Your task to perform on an android device: empty trash in google photos Image 0: 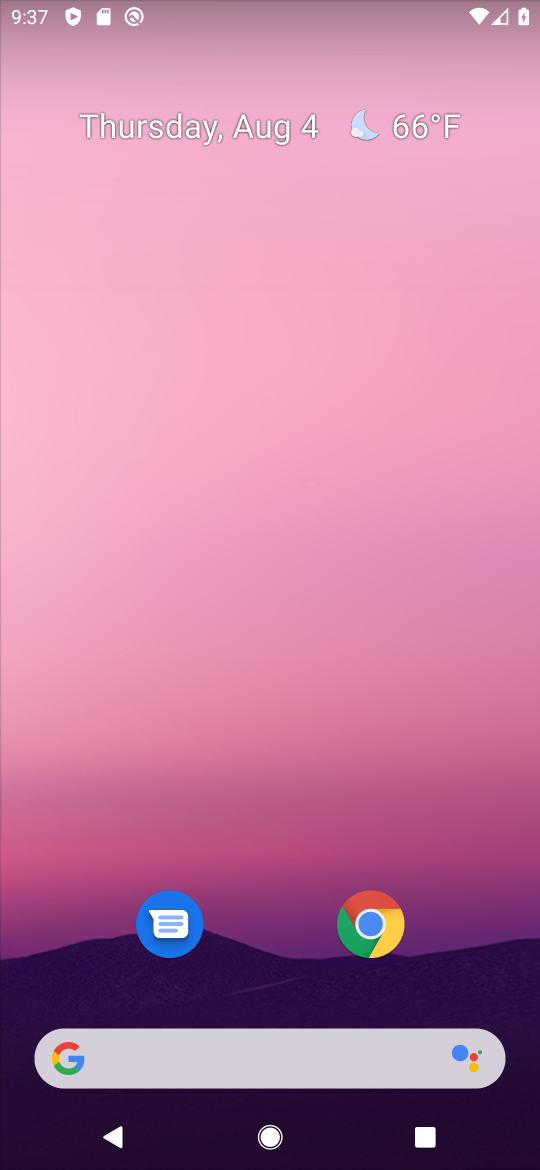
Step 0: drag from (271, 856) to (355, 366)
Your task to perform on an android device: empty trash in google photos Image 1: 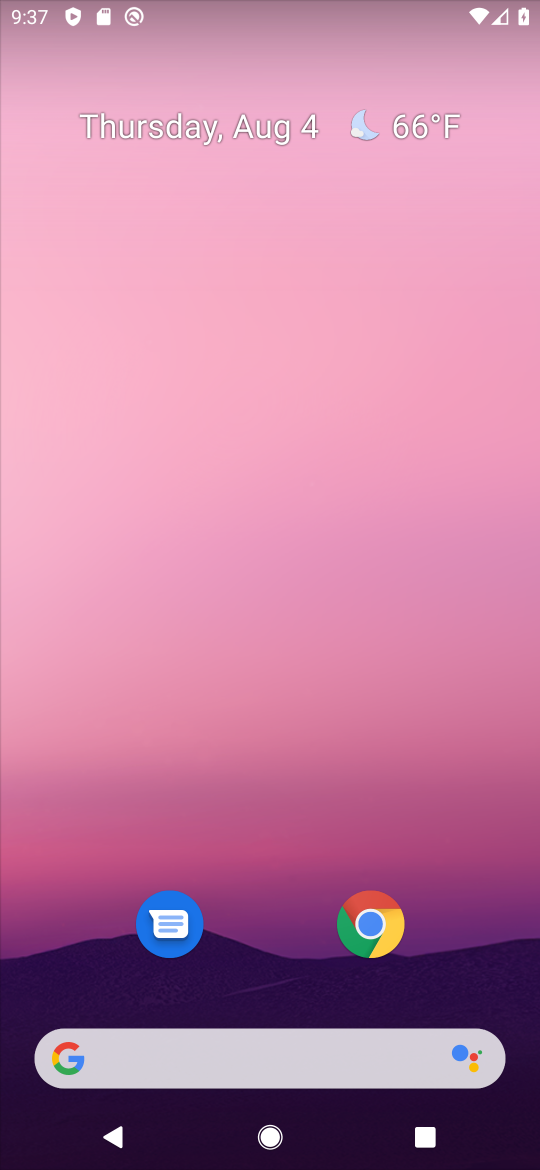
Step 1: drag from (325, 769) to (326, 290)
Your task to perform on an android device: empty trash in google photos Image 2: 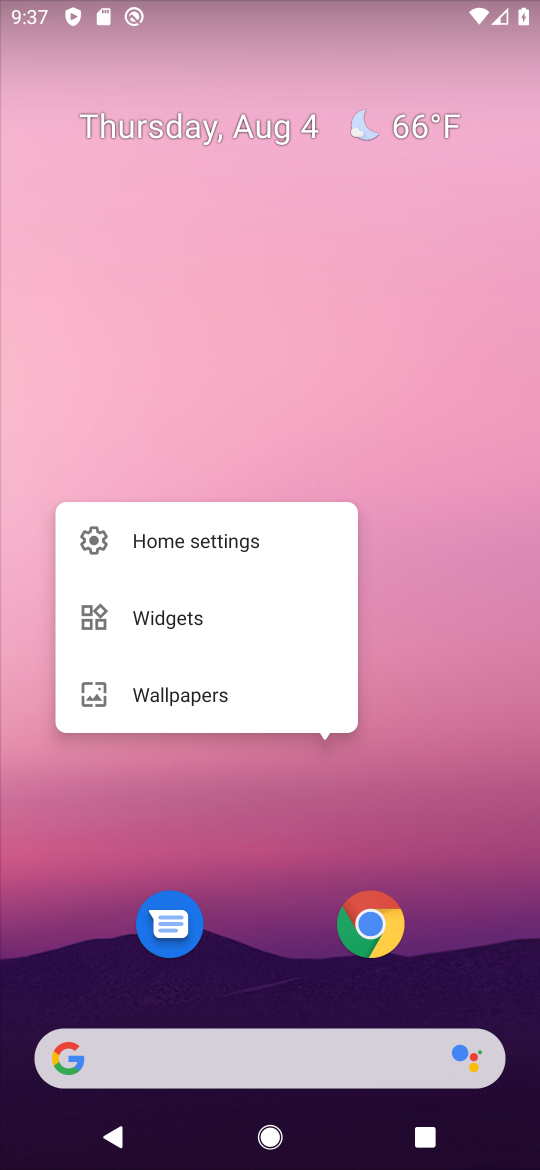
Step 2: click (440, 697)
Your task to perform on an android device: empty trash in google photos Image 3: 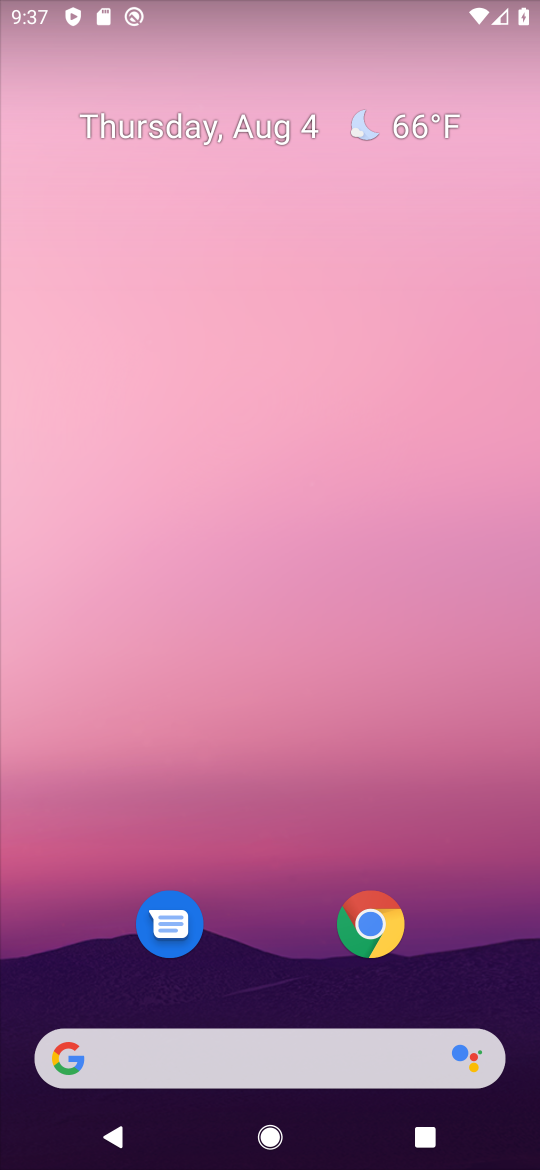
Step 3: drag from (291, 805) to (271, 183)
Your task to perform on an android device: empty trash in google photos Image 4: 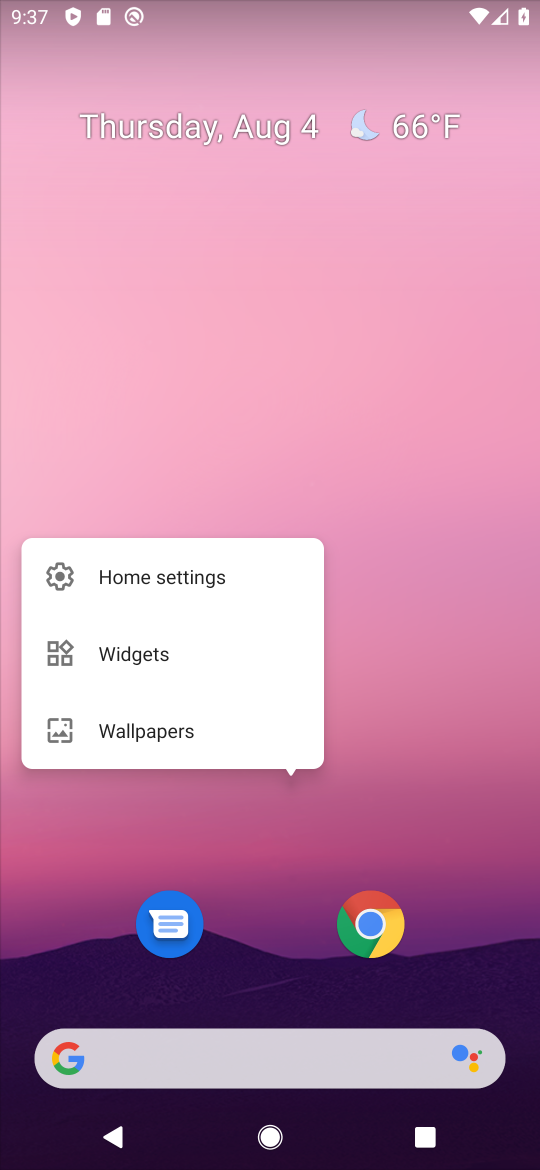
Step 4: click (482, 633)
Your task to perform on an android device: empty trash in google photos Image 5: 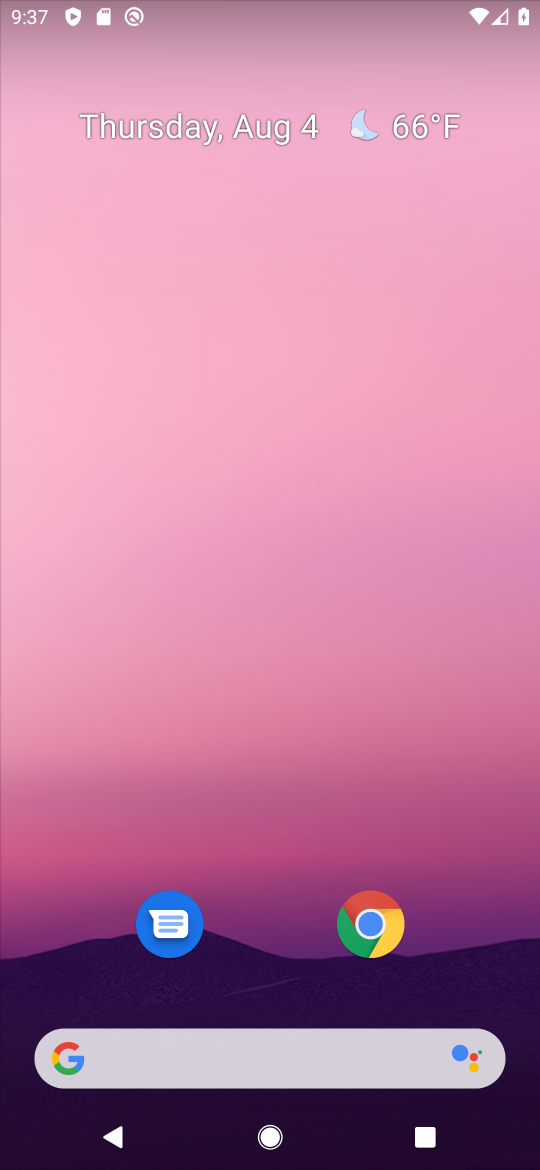
Step 5: drag from (277, 816) to (318, 395)
Your task to perform on an android device: empty trash in google photos Image 6: 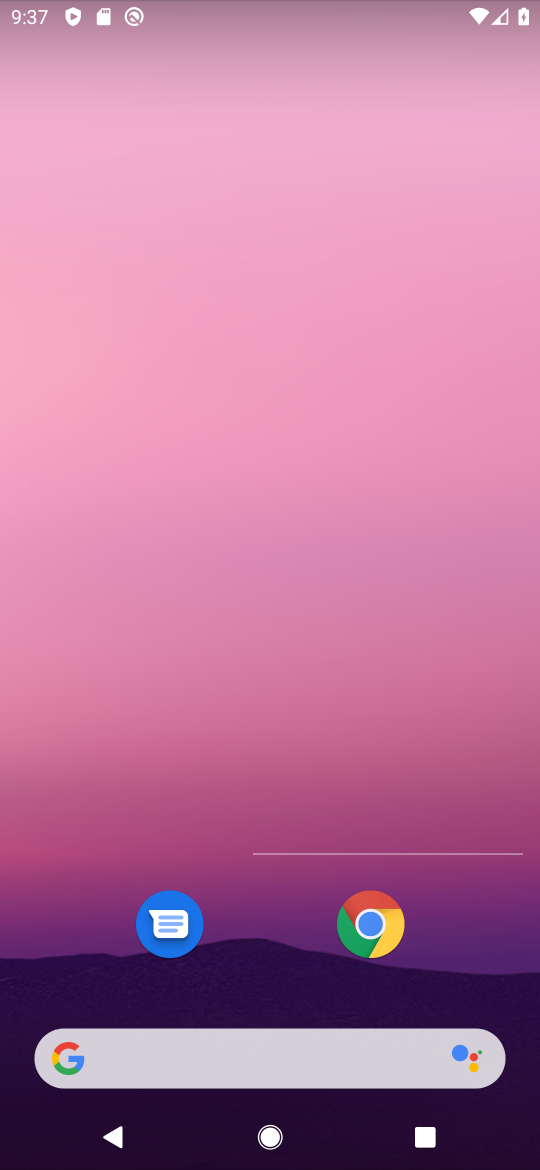
Step 6: click (376, 576)
Your task to perform on an android device: empty trash in google photos Image 7: 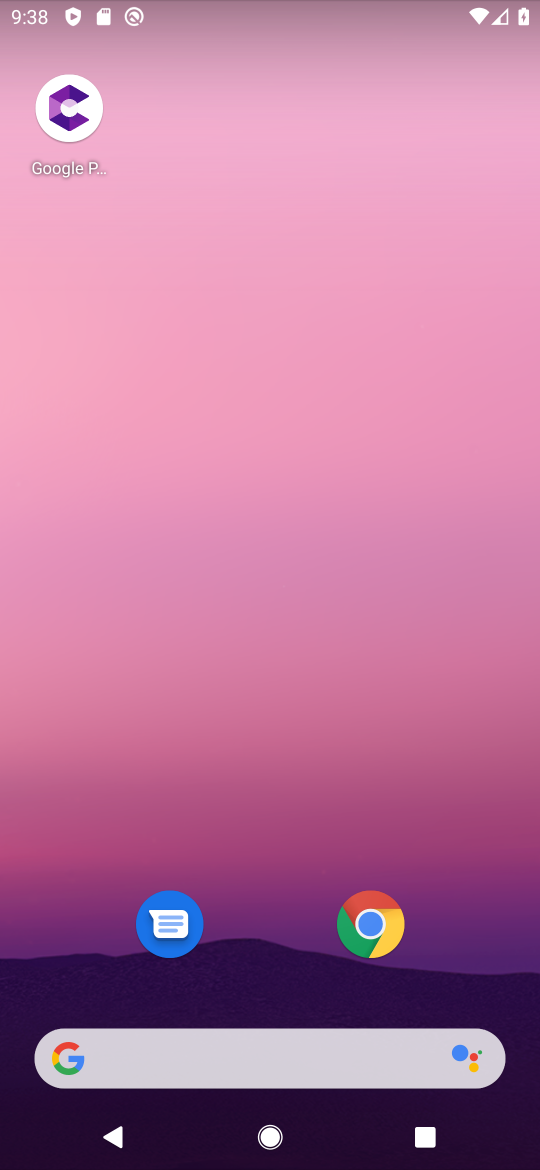
Step 7: drag from (257, 819) to (271, 220)
Your task to perform on an android device: empty trash in google photos Image 8: 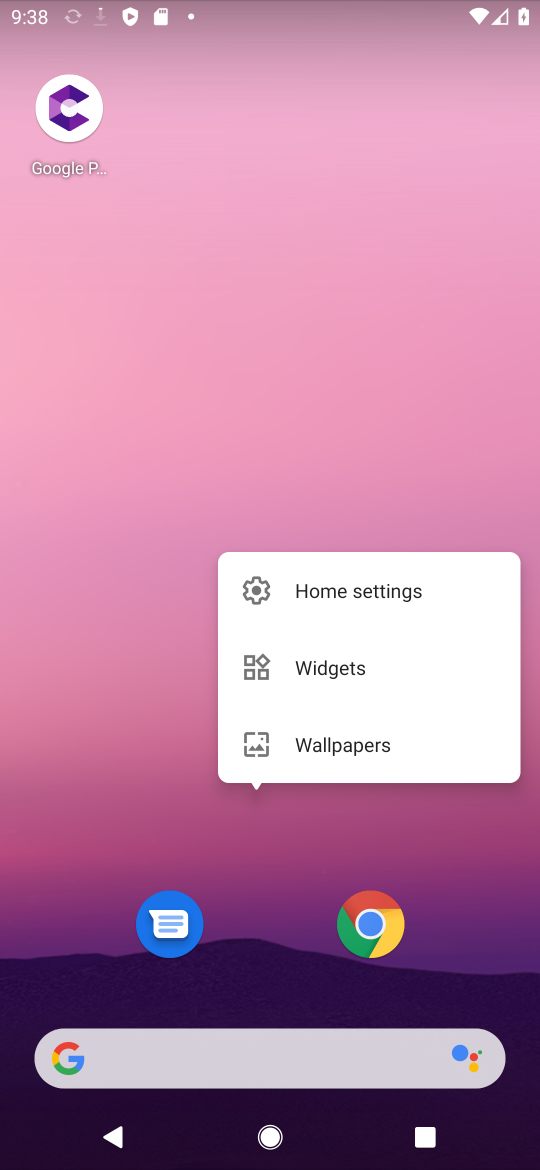
Step 8: click (178, 429)
Your task to perform on an android device: empty trash in google photos Image 9: 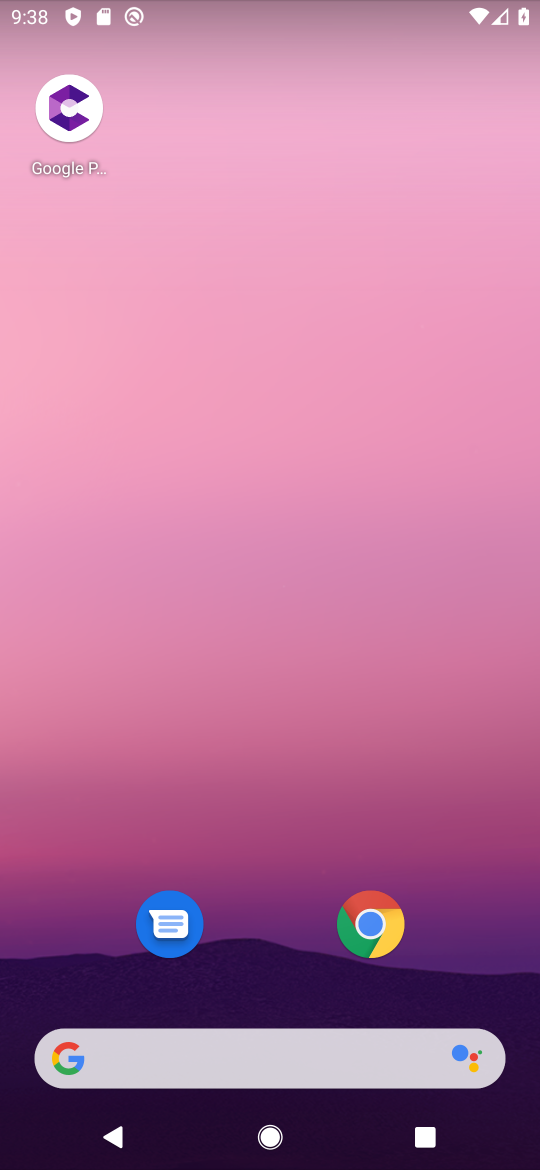
Step 9: click (178, 429)
Your task to perform on an android device: empty trash in google photos Image 10: 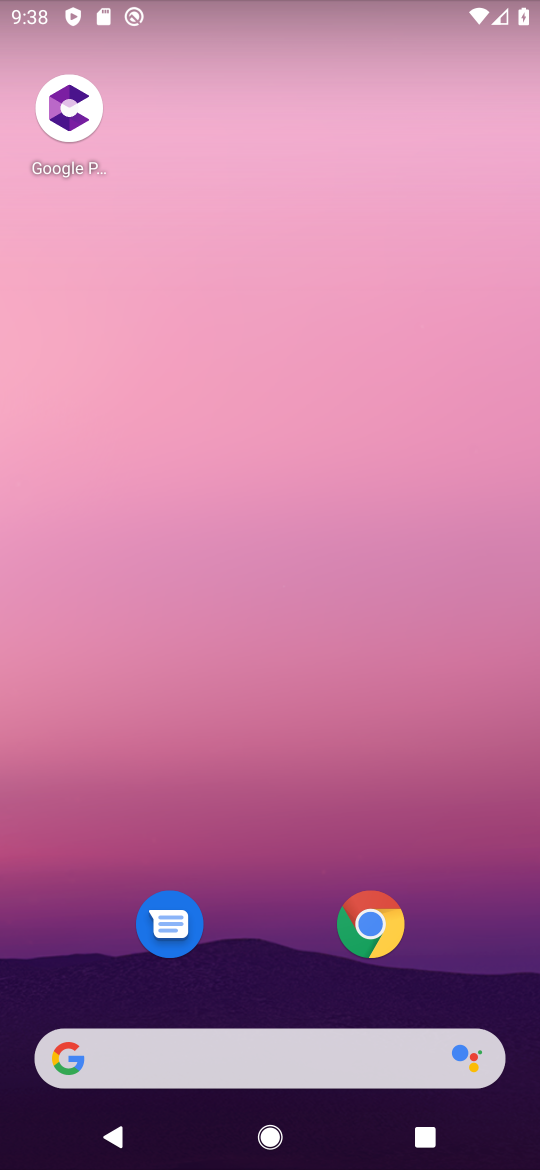
Step 10: drag from (245, 821) to (265, 180)
Your task to perform on an android device: empty trash in google photos Image 11: 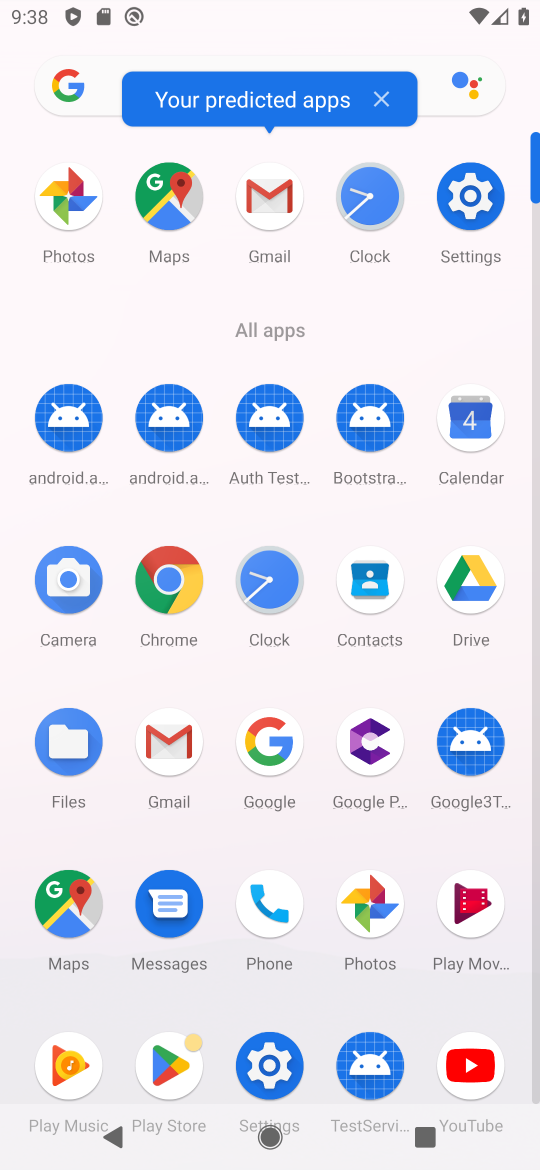
Step 11: click (361, 917)
Your task to perform on an android device: empty trash in google photos Image 12: 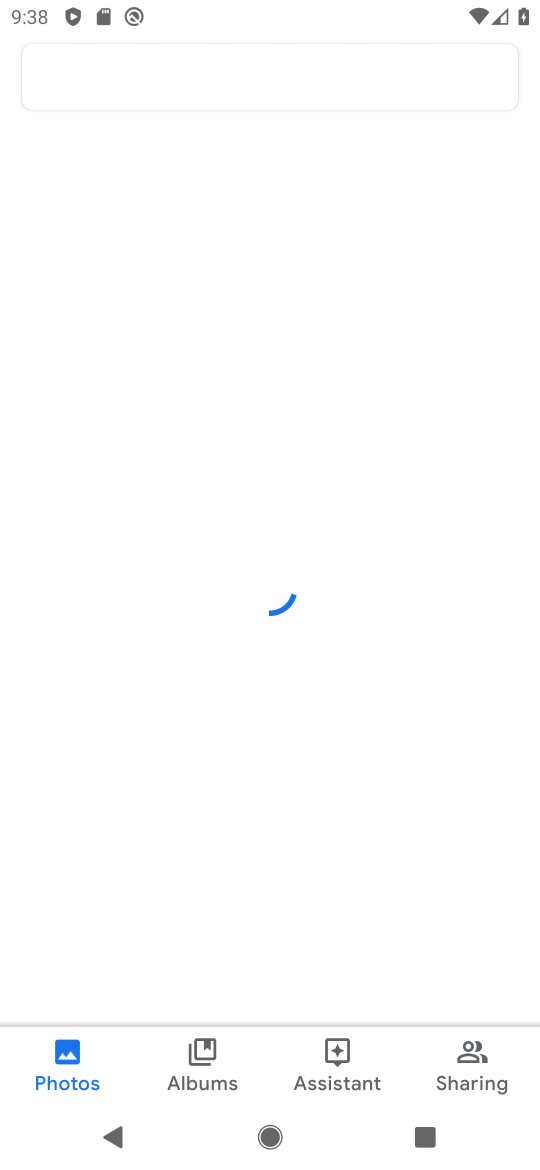
Step 12: task complete